Your task to perform on an android device: open a bookmark in the chrome app Image 0: 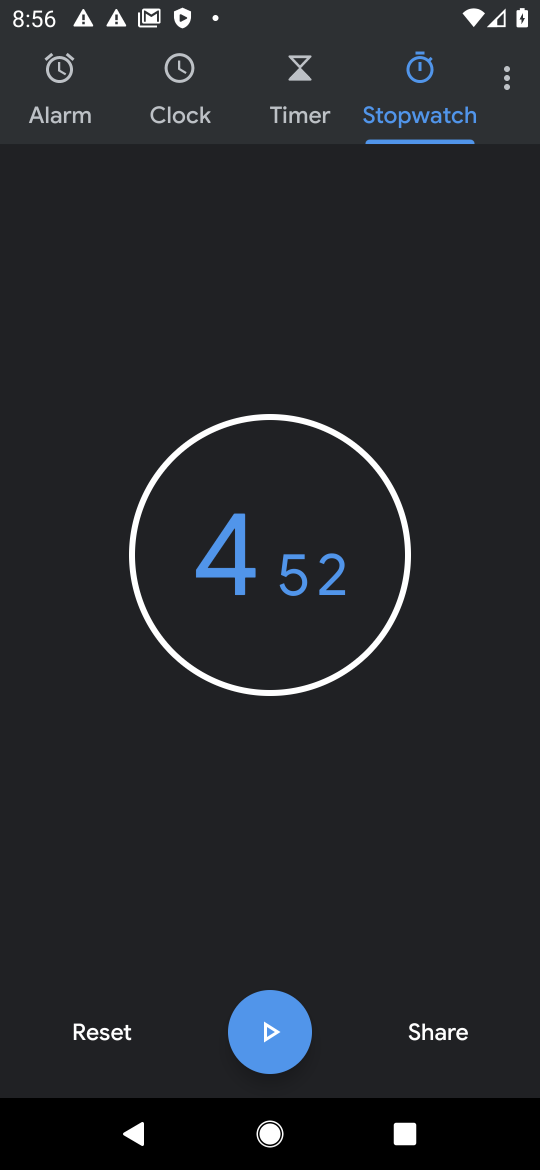
Step 0: press back button
Your task to perform on an android device: open a bookmark in the chrome app Image 1: 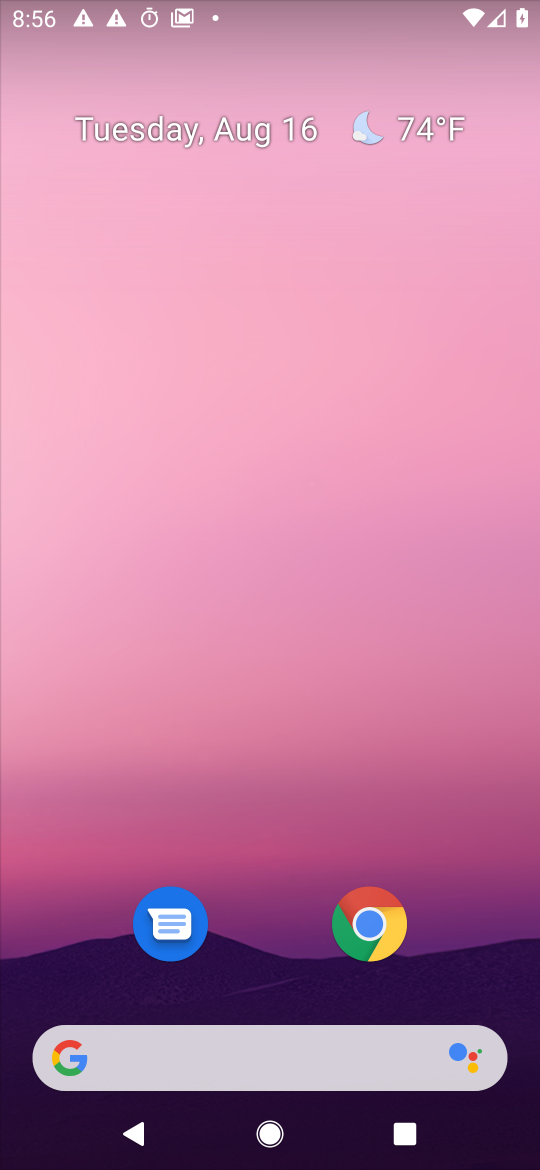
Step 1: click (360, 926)
Your task to perform on an android device: open a bookmark in the chrome app Image 2: 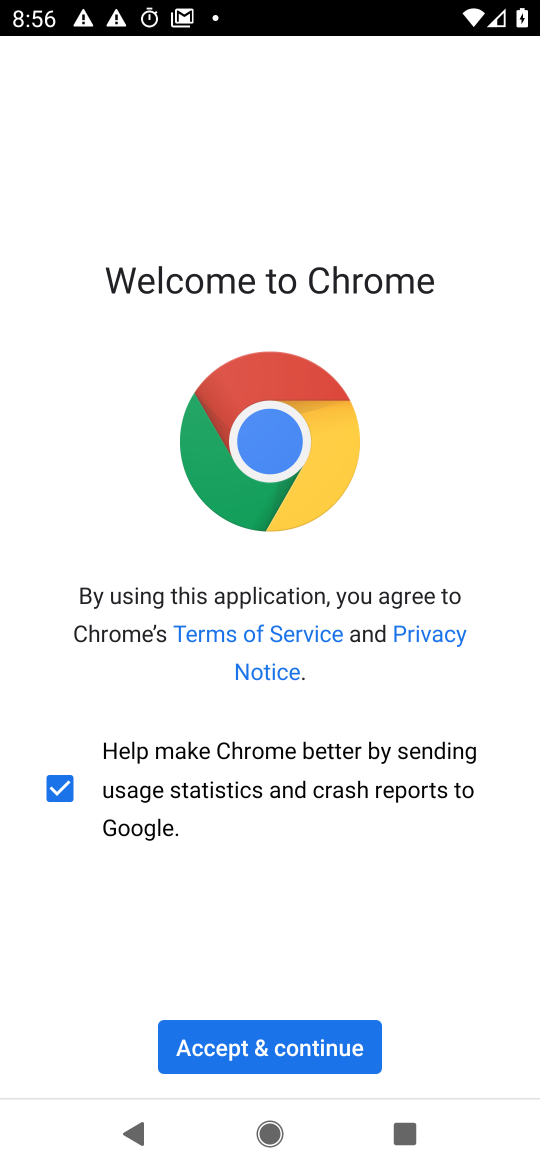
Step 2: click (227, 1043)
Your task to perform on an android device: open a bookmark in the chrome app Image 3: 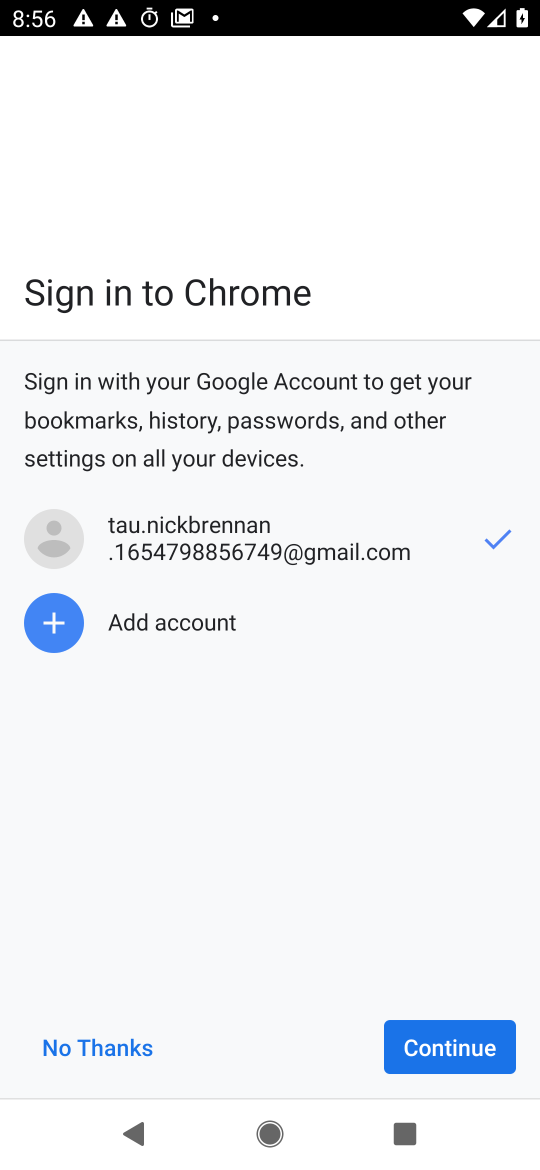
Step 3: click (463, 1039)
Your task to perform on an android device: open a bookmark in the chrome app Image 4: 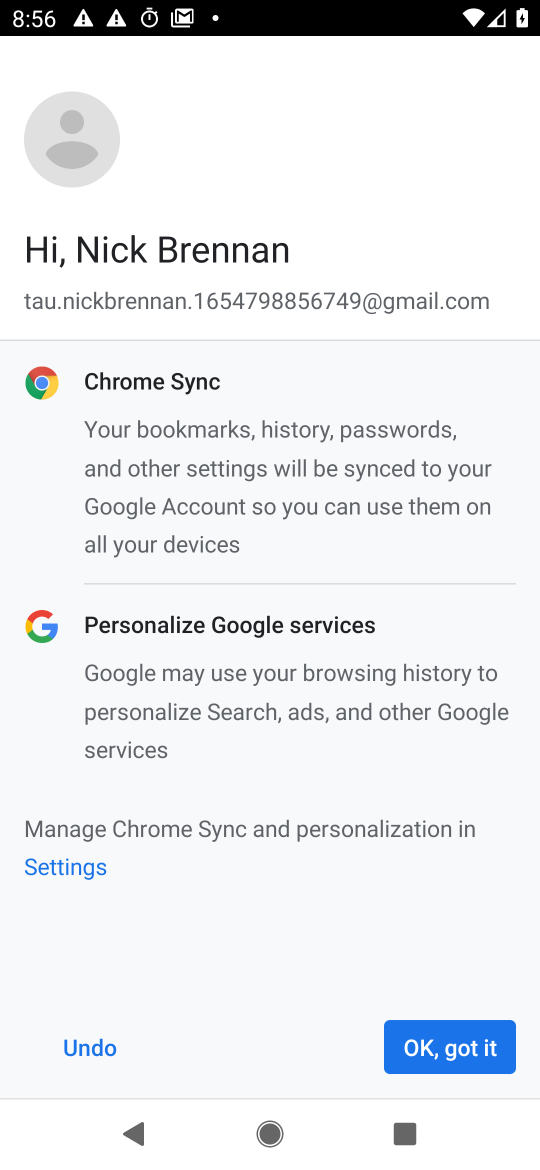
Step 4: click (456, 1047)
Your task to perform on an android device: open a bookmark in the chrome app Image 5: 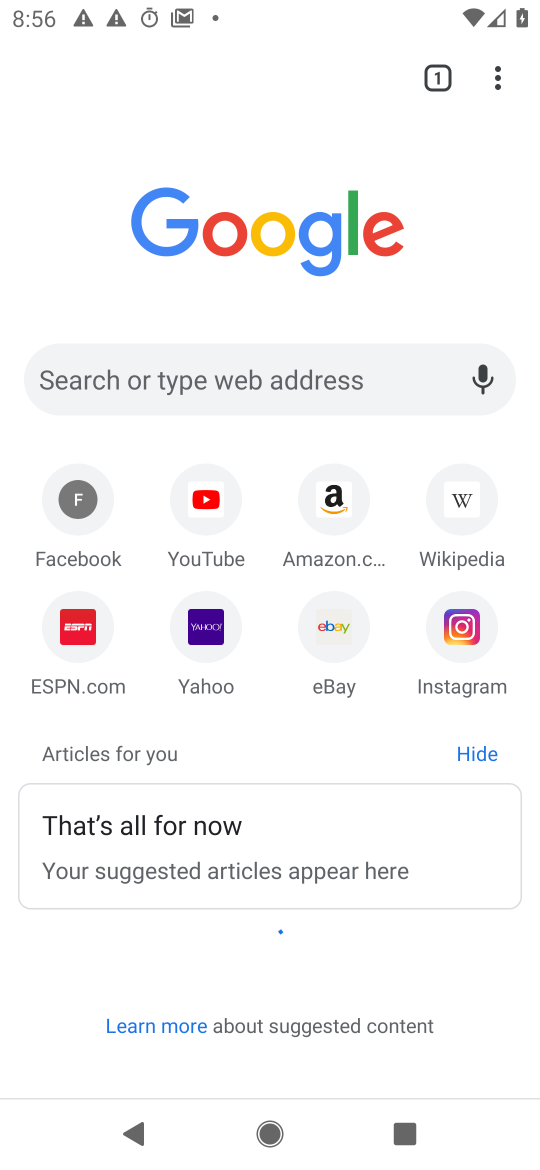
Step 5: drag from (502, 75) to (281, 290)
Your task to perform on an android device: open a bookmark in the chrome app Image 6: 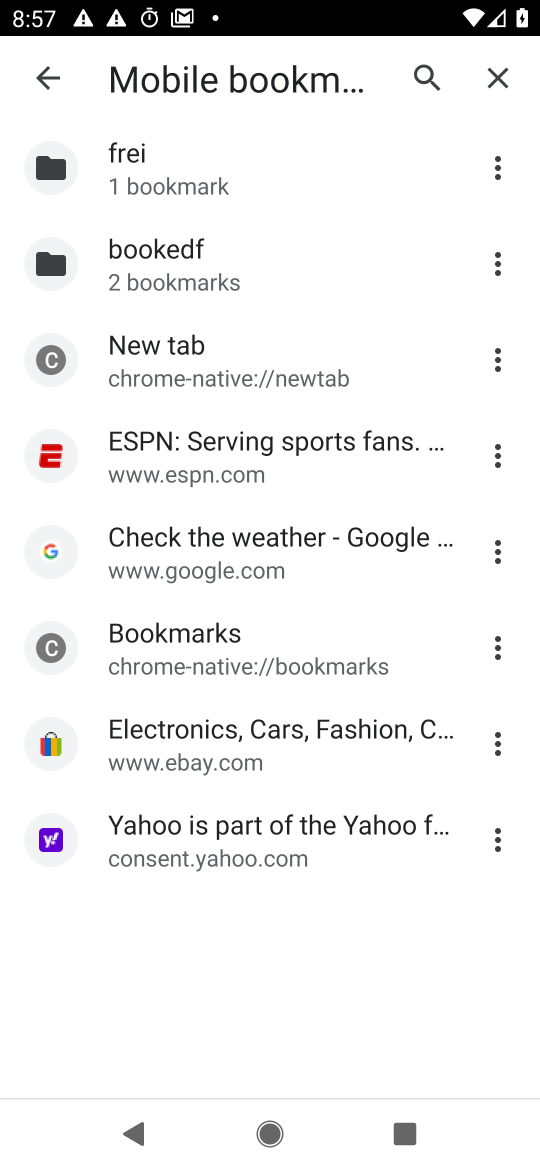
Step 6: click (210, 471)
Your task to perform on an android device: open a bookmark in the chrome app Image 7: 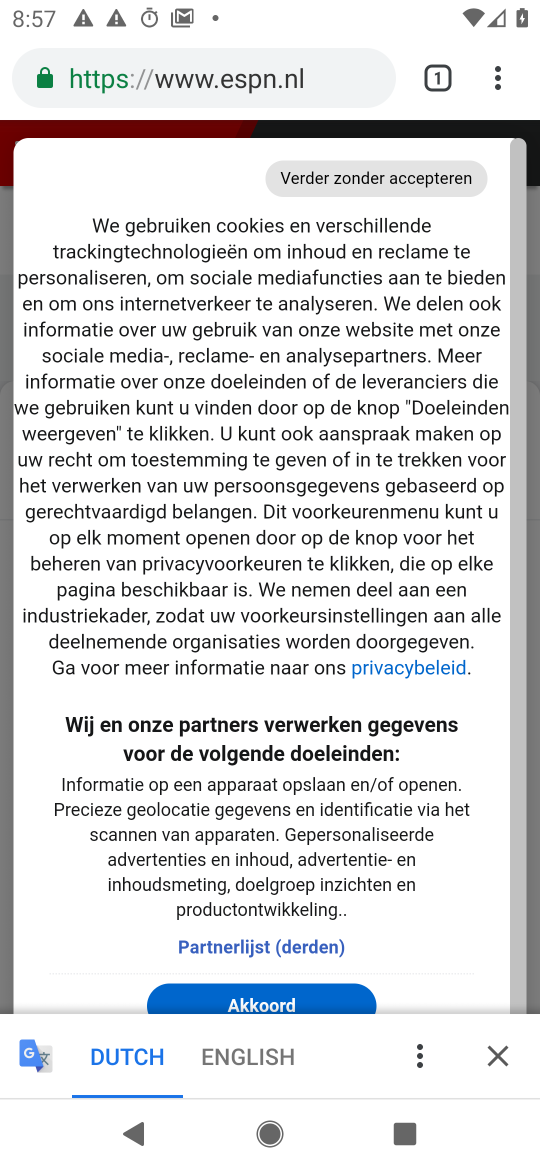
Step 7: task complete